Your task to perform on an android device: open chrome and create a bookmark for the current page Image 0: 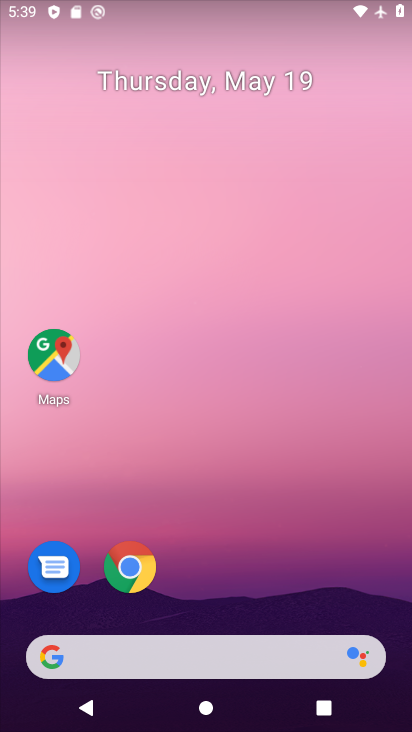
Step 0: drag from (271, 685) to (128, 169)
Your task to perform on an android device: open chrome and create a bookmark for the current page Image 1: 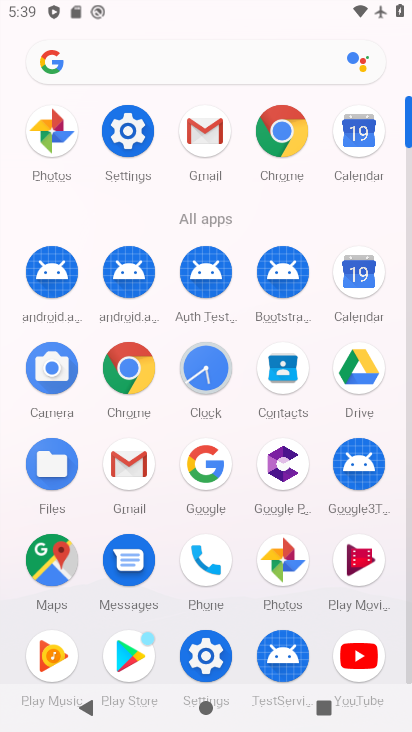
Step 1: click (132, 138)
Your task to perform on an android device: open chrome and create a bookmark for the current page Image 2: 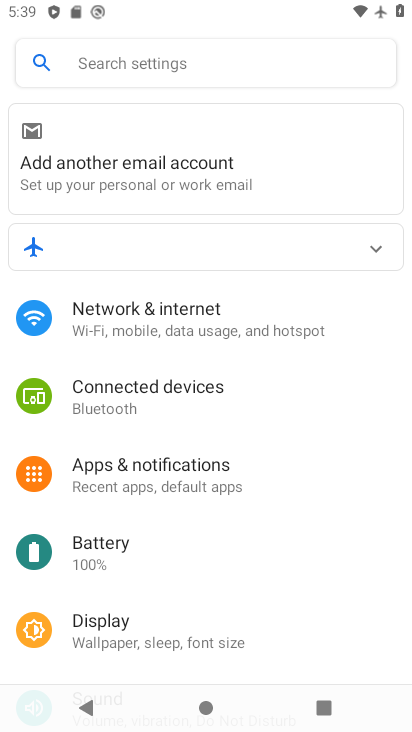
Step 2: press back button
Your task to perform on an android device: open chrome and create a bookmark for the current page Image 3: 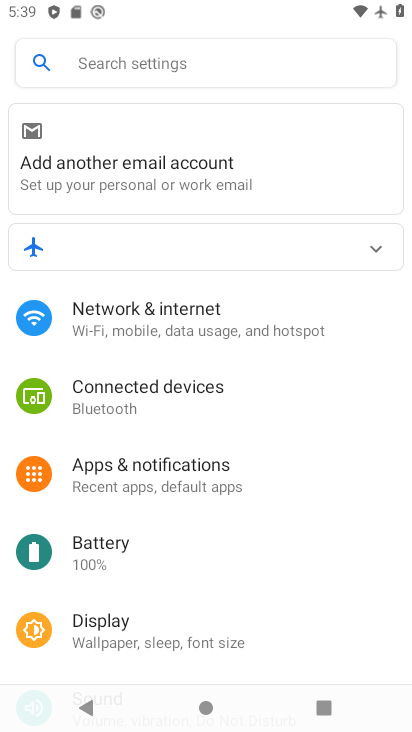
Step 3: press back button
Your task to perform on an android device: open chrome and create a bookmark for the current page Image 4: 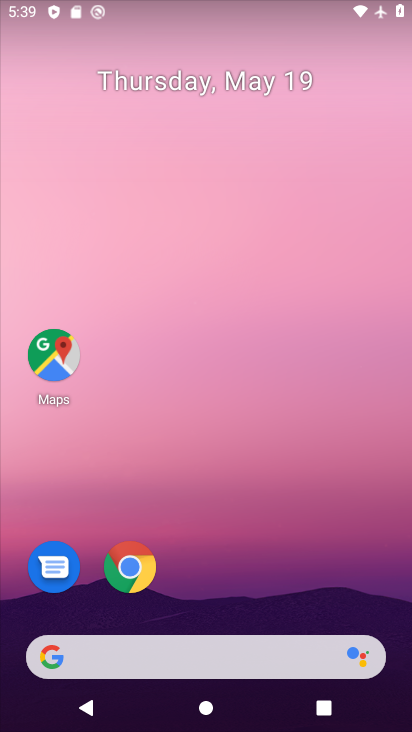
Step 4: drag from (289, 579) to (225, 149)
Your task to perform on an android device: open chrome and create a bookmark for the current page Image 5: 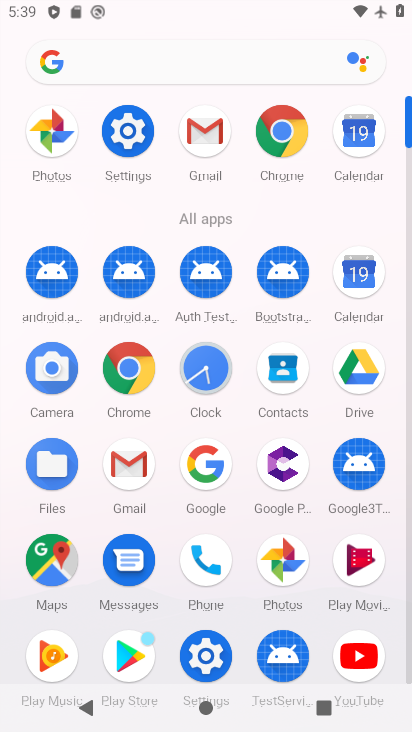
Step 5: click (293, 133)
Your task to perform on an android device: open chrome and create a bookmark for the current page Image 6: 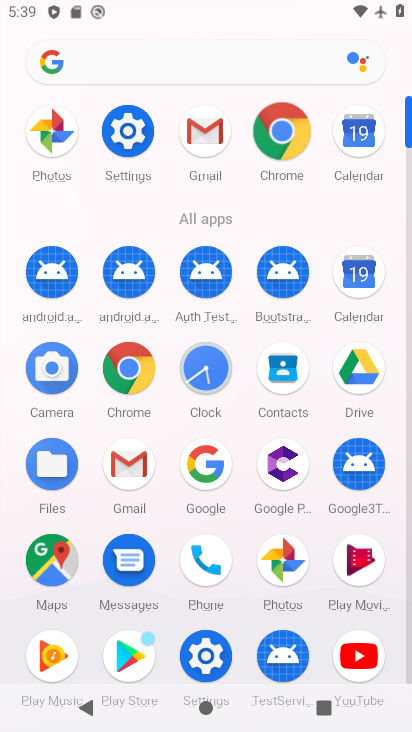
Step 6: click (313, 116)
Your task to perform on an android device: open chrome and create a bookmark for the current page Image 7: 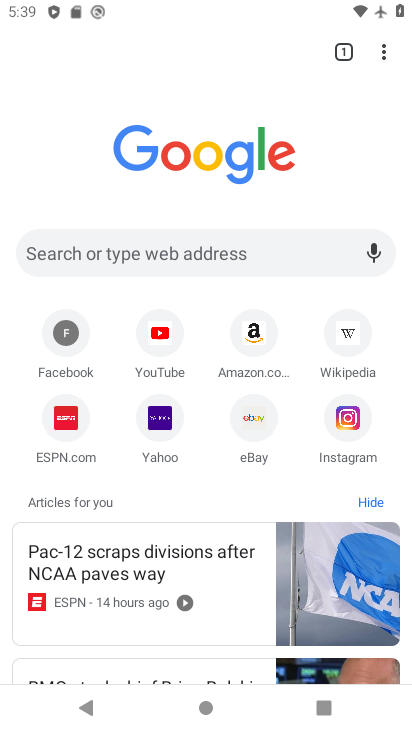
Step 7: drag from (381, 56) to (194, 98)
Your task to perform on an android device: open chrome and create a bookmark for the current page Image 8: 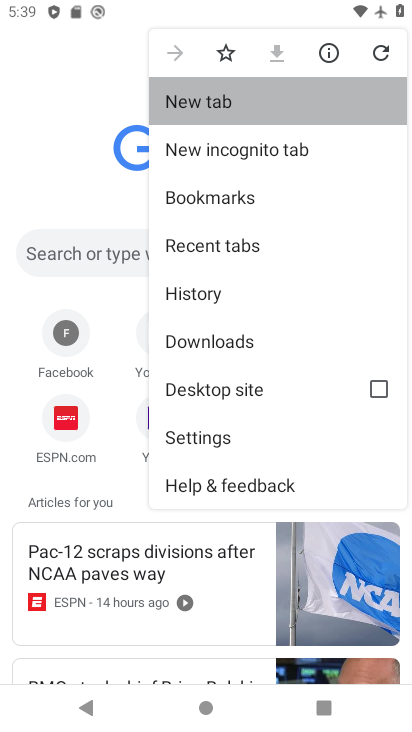
Step 8: click (199, 103)
Your task to perform on an android device: open chrome and create a bookmark for the current page Image 9: 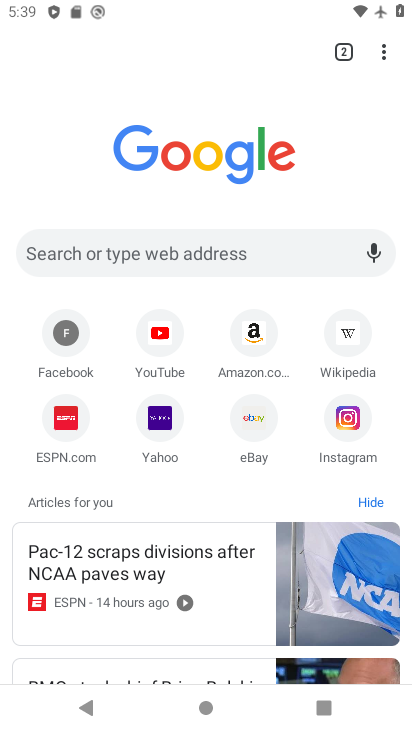
Step 9: click (70, 265)
Your task to perform on an android device: open chrome and create a bookmark for the current page Image 10: 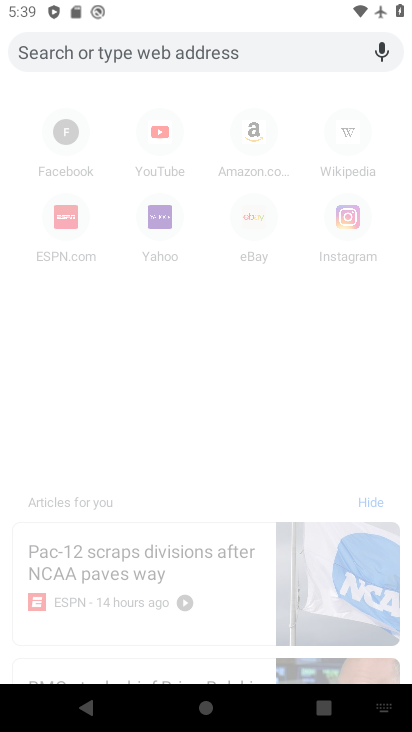
Step 10: type "www.snapdeal.com"
Your task to perform on an android device: open chrome and create a bookmark for the current page Image 11: 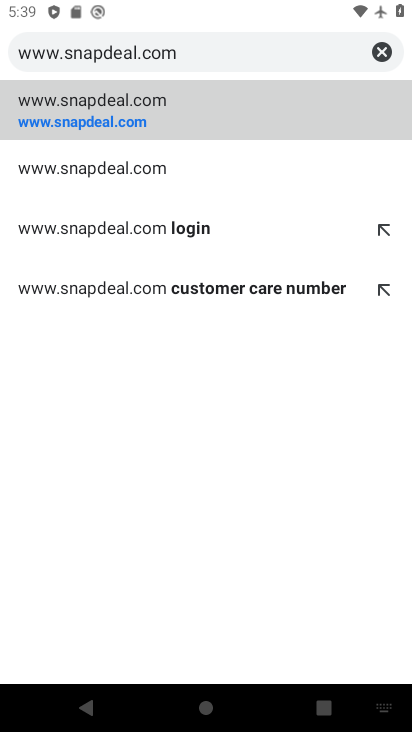
Step 11: click (86, 117)
Your task to perform on an android device: open chrome and create a bookmark for the current page Image 12: 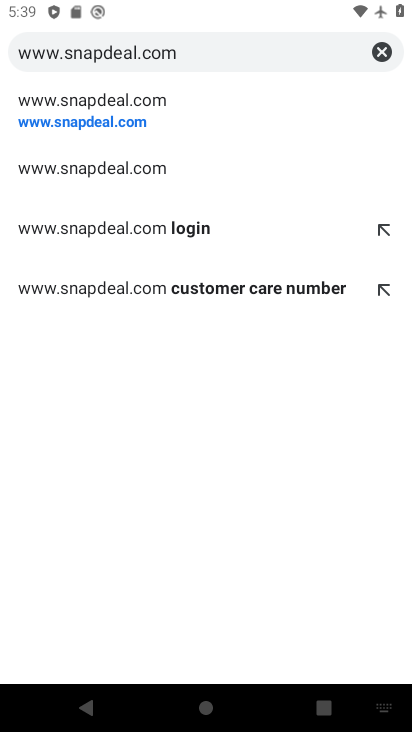
Step 12: click (107, 117)
Your task to perform on an android device: open chrome and create a bookmark for the current page Image 13: 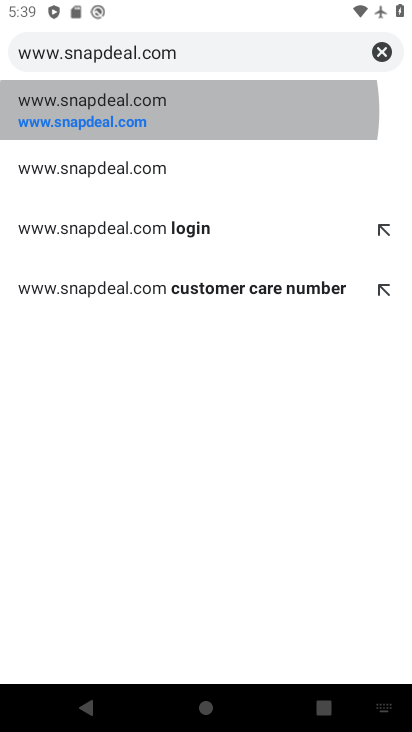
Step 13: click (106, 117)
Your task to perform on an android device: open chrome and create a bookmark for the current page Image 14: 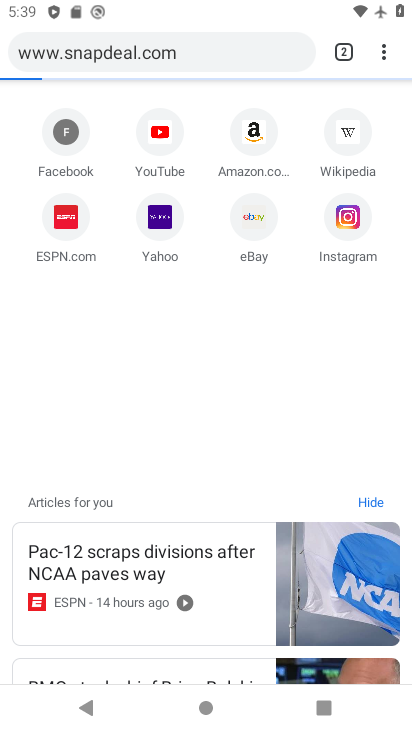
Step 14: task complete